Your task to perform on an android device: turn pop-ups off in chrome Image 0: 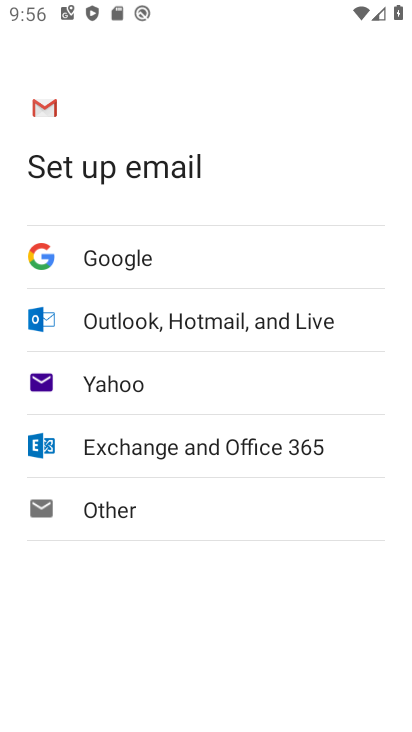
Step 0: press back button
Your task to perform on an android device: turn pop-ups off in chrome Image 1: 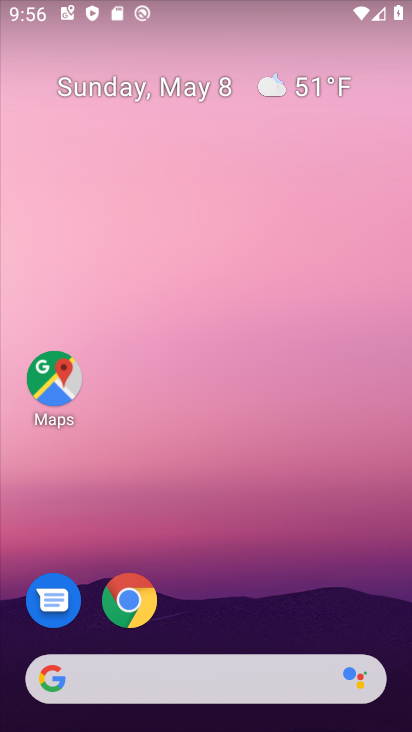
Step 1: drag from (245, 587) to (160, 11)
Your task to perform on an android device: turn pop-ups off in chrome Image 2: 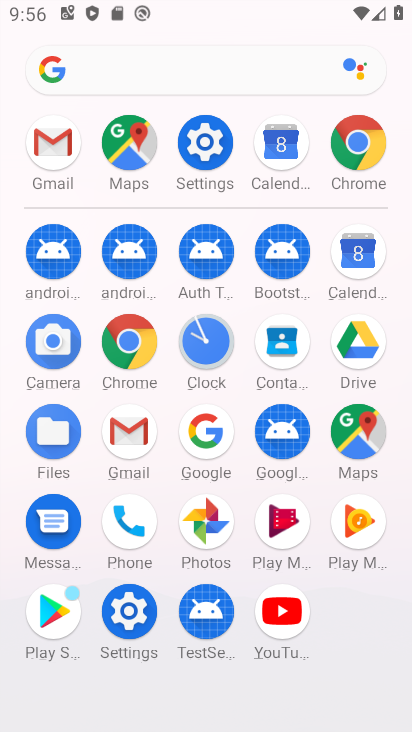
Step 2: click (124, 339)
Your task to perform on an android device: turn pop-ups off in chrome Image 3: 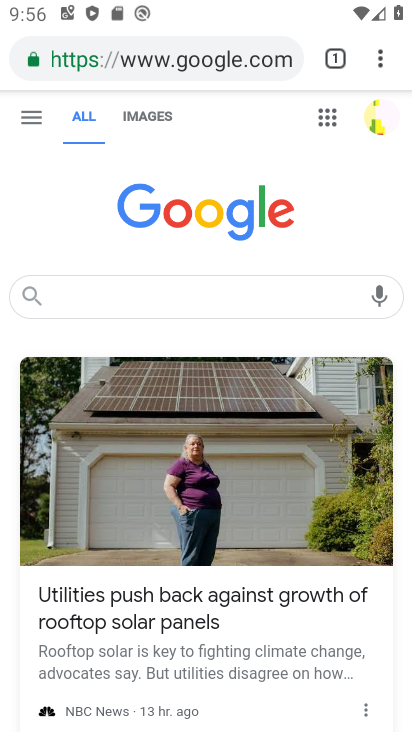
Step 3: drag from (377, 61) to (195, 635)
Your task to perform on an android device: turn pop-ups off in chrome Image 4: 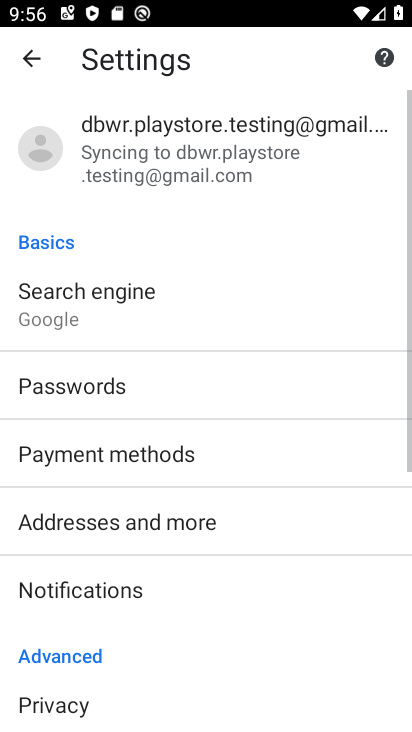
Step 4: drag from (231, 630) to (239, 147)
Your task to perform on an android device: turn pop-ups off in chrome Image 5: 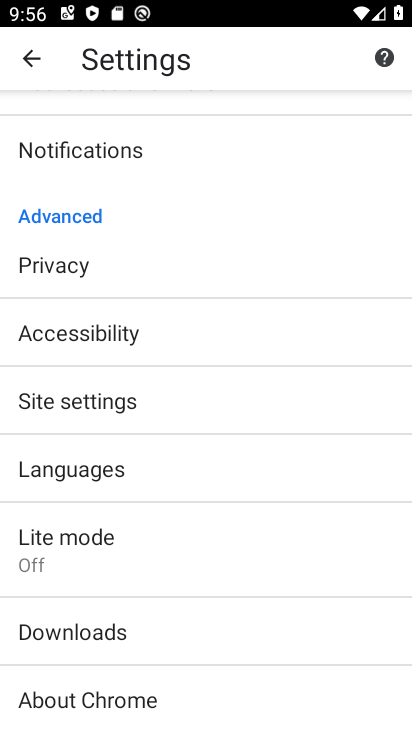
Step 5: click (152, 407)
Your task to perform on an android device: turn pop-ups off in chrome Image 6: 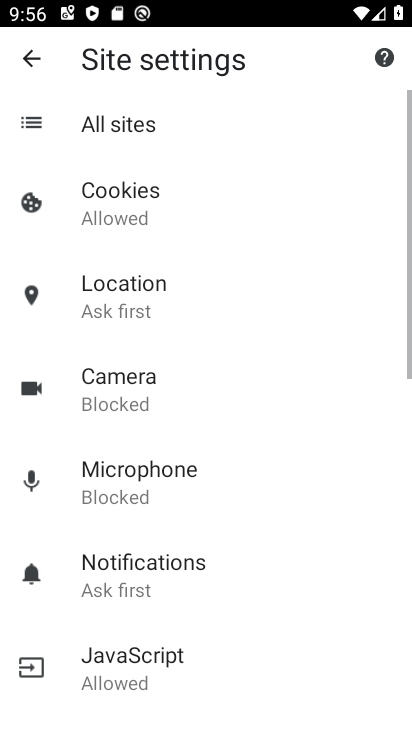
Step 6: drag from (265, 561) to (237, 160)
Your task to perform on an android device: turn pop-ups off in chrome Image 7: 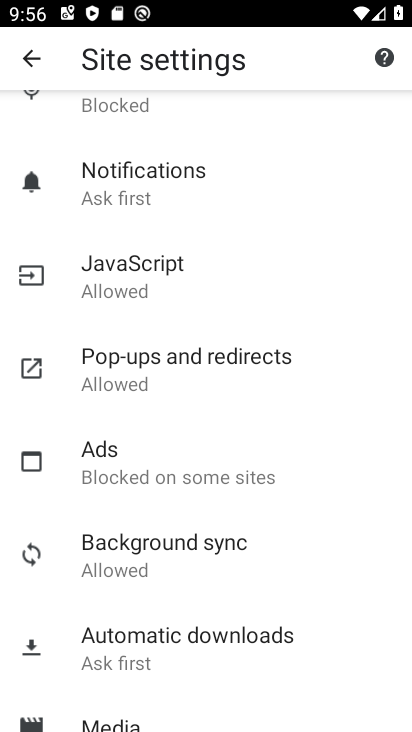
Step 7: click (213, 361)
Your task to perform on an android device: turn pop-ups off in chrome Image 8: 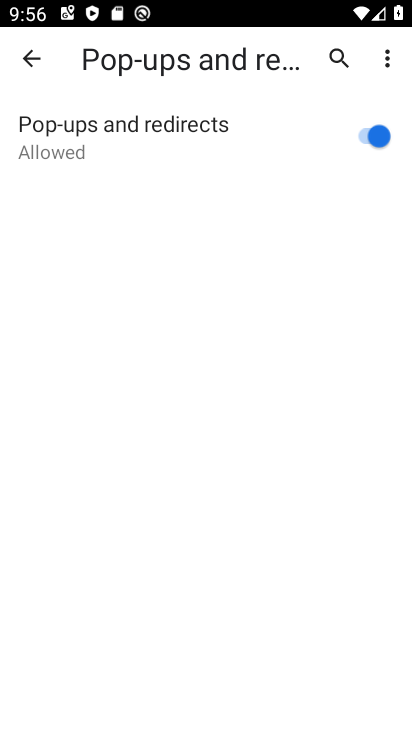
Step 8: click (352, 134)
Your task to perform on an android device: turn pop-ups off in chrome Image 9: 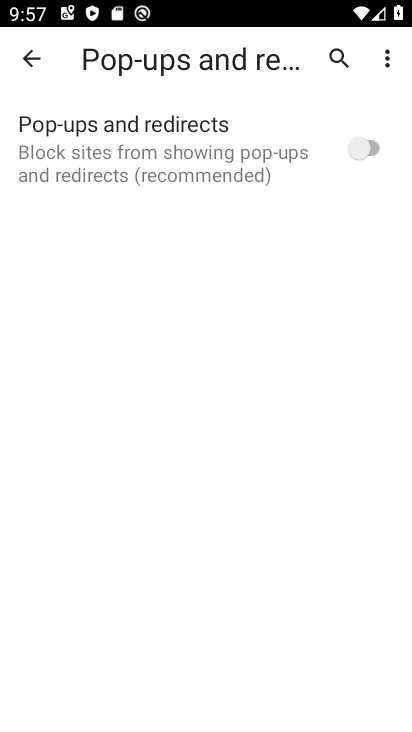
Step 9: task complete